Your task to perform on an android device: change the upload size in google photos Image 0: 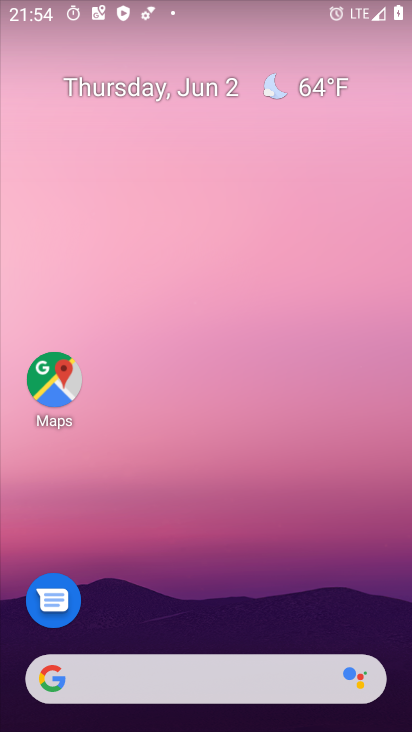
Step 0: drag from (236, 616) to (269, 6)
Your task to perform on an android device: change the upload size in google photos Image 1: 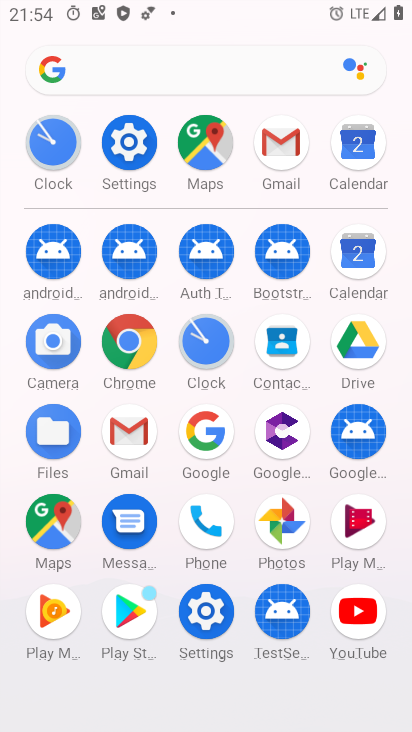
Step 1: click (283, 523)
Your task to perform on an android device: change the upload size in google photos Image 2: 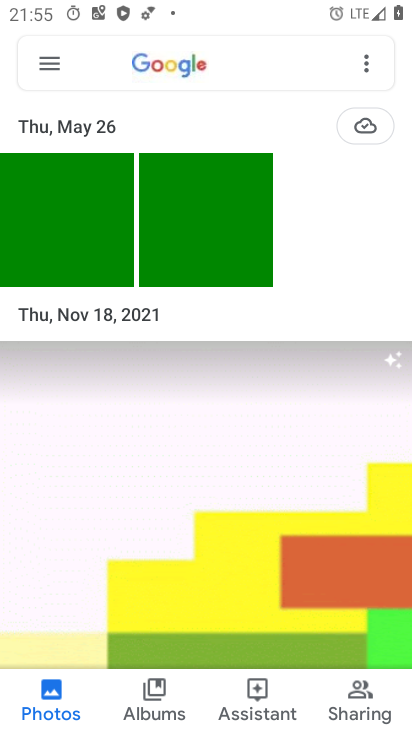
Step 2: click (43, 64)
Your task to perform on an android device: change the upload size in google photos Image 3: 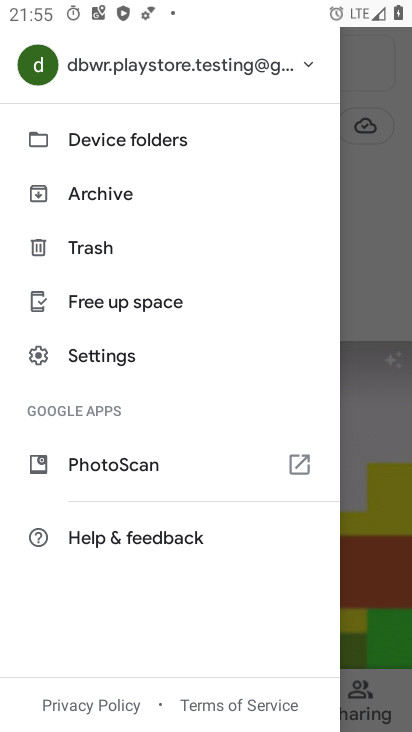
Step 3: click (115, 355)
Your task to perform on an android device: change the upload size in google photos Image 4: 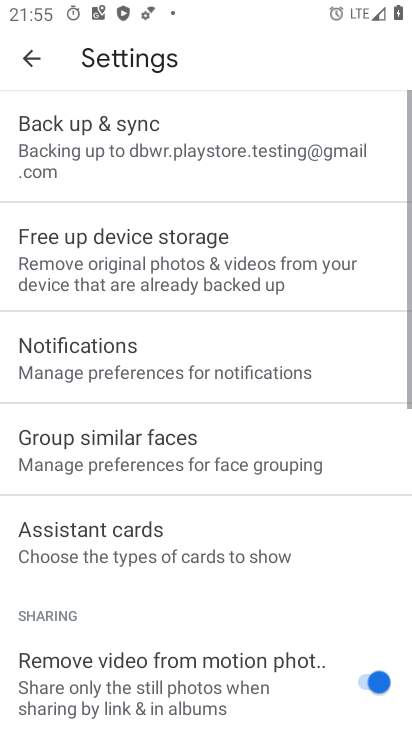
Step 4: click (164, 144)
Your task to perform on an android device: change the upload size in google photos Image 5: 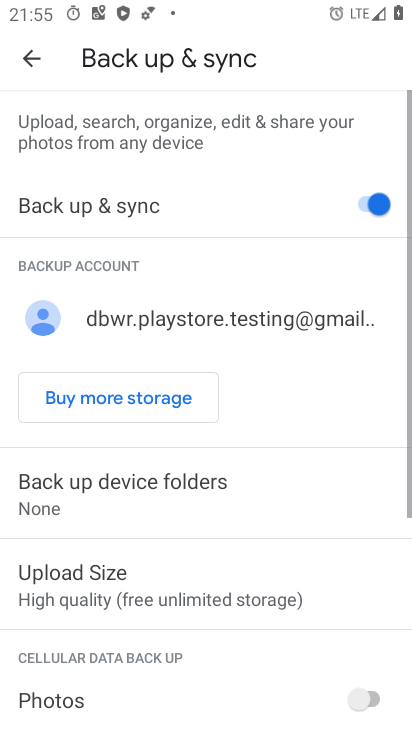
Step 5: click (129, 591)
Your task to perform on an android device: change the upload size in google photos Image 6: 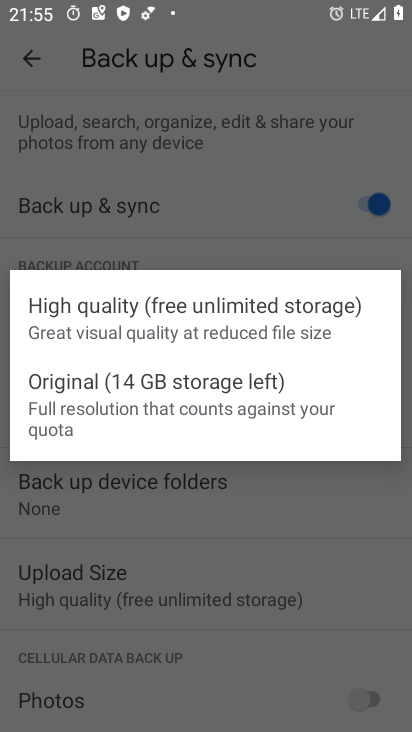
Step 6: click (107, 408)
Your task to perform on an android device: change the upload size in google photos Image 7: 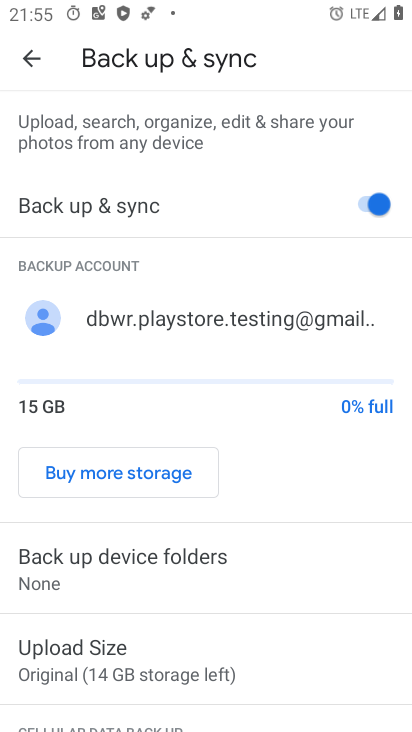
Step 7: task complete